Your task to perform on an android device: Open ESPN.com Image 0: 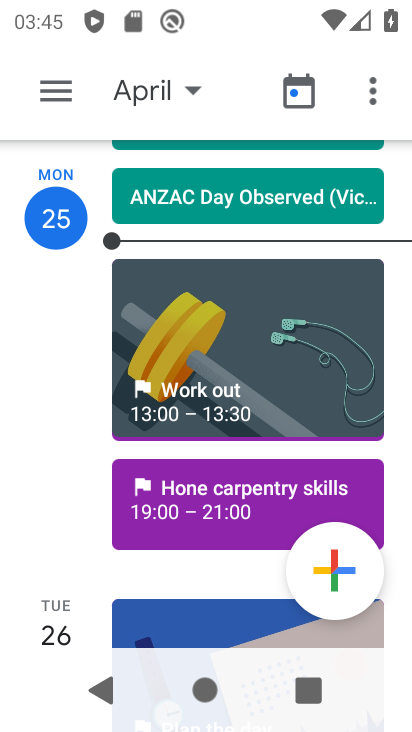
Step 0: press home button
Your task to perform on an android device: Open ESPN.com Image 1: 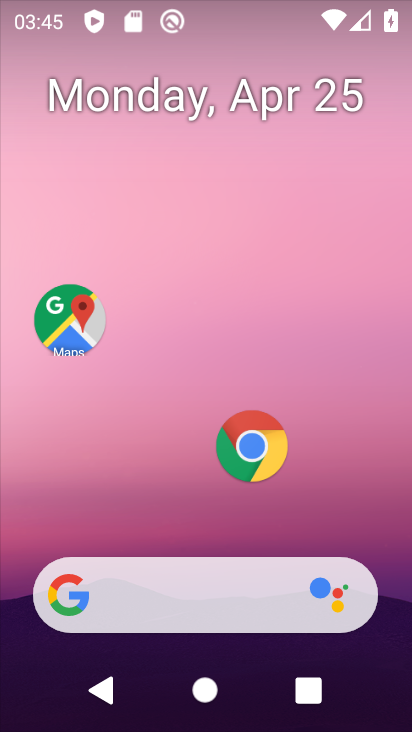
Step 1: click (184, 595)
Your task to perform on an android device: Open ESPN.com Image 2: 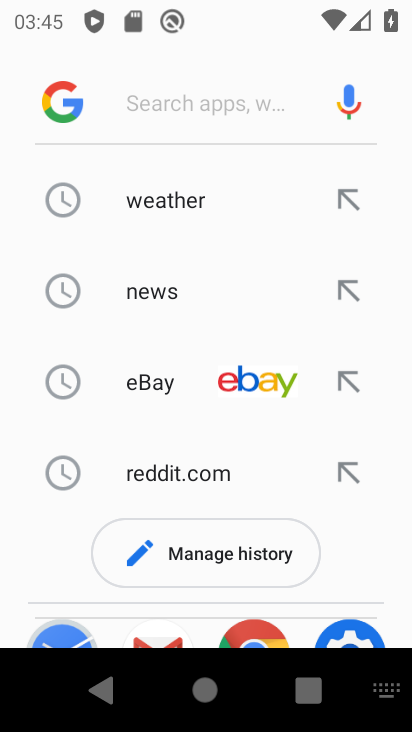
Step 2: type "espn.com"
Your task to perform on an android device: Open ESPN.com Image 3: 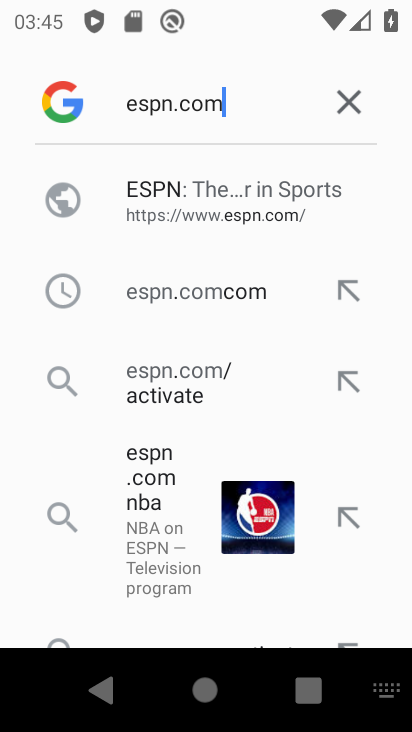
Step 3: click (249, 204)
Your task to perform on an android device: Open ESPN.com Image 4: 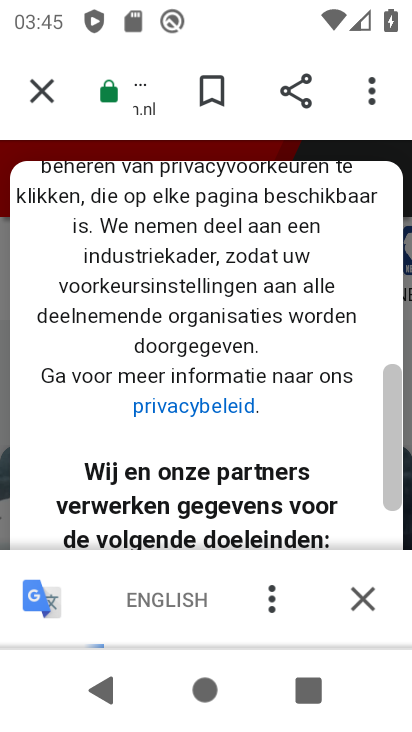
Step 4: task complete